Your task to perform on an android device: Add "apple airpods pro" to the cart on ebay, then select checkout. Image 0: 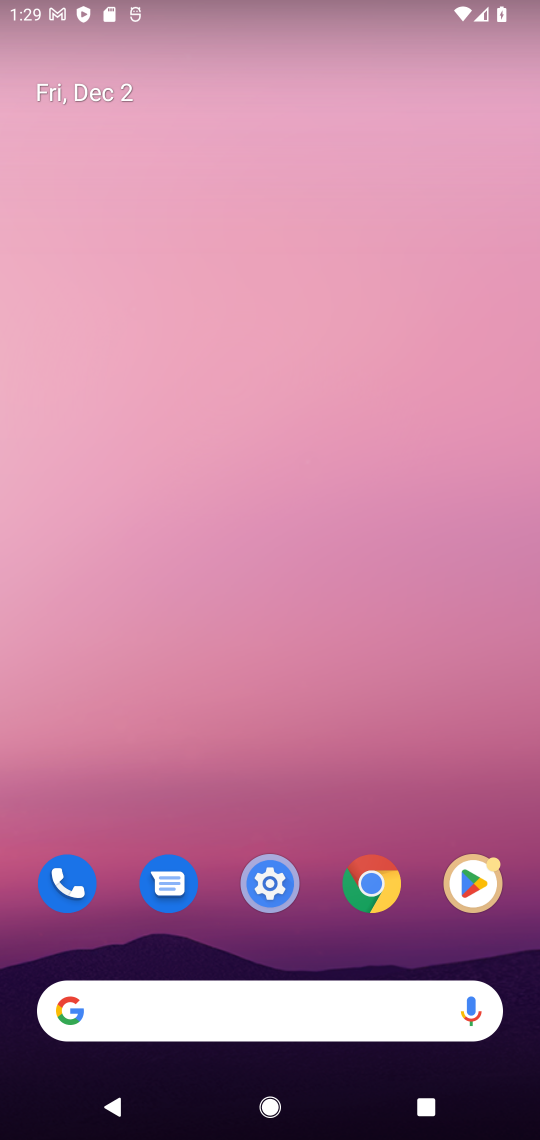
Step 0: click (363, 889)
Your task to perform on an android device: Add "apple airpods pro" to the cart on ebay, then select checkout. Image 1: 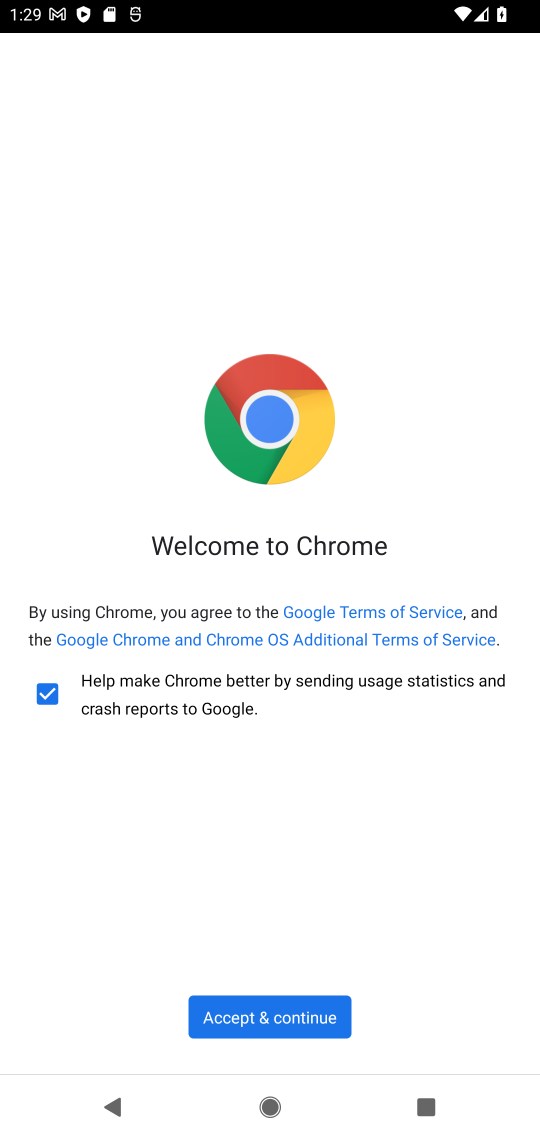
Step 1: click (305, 1022)
Your task to perform on an android device: Add "apple airpods pro" to the cart on ebay, then select checkout. Image 2: 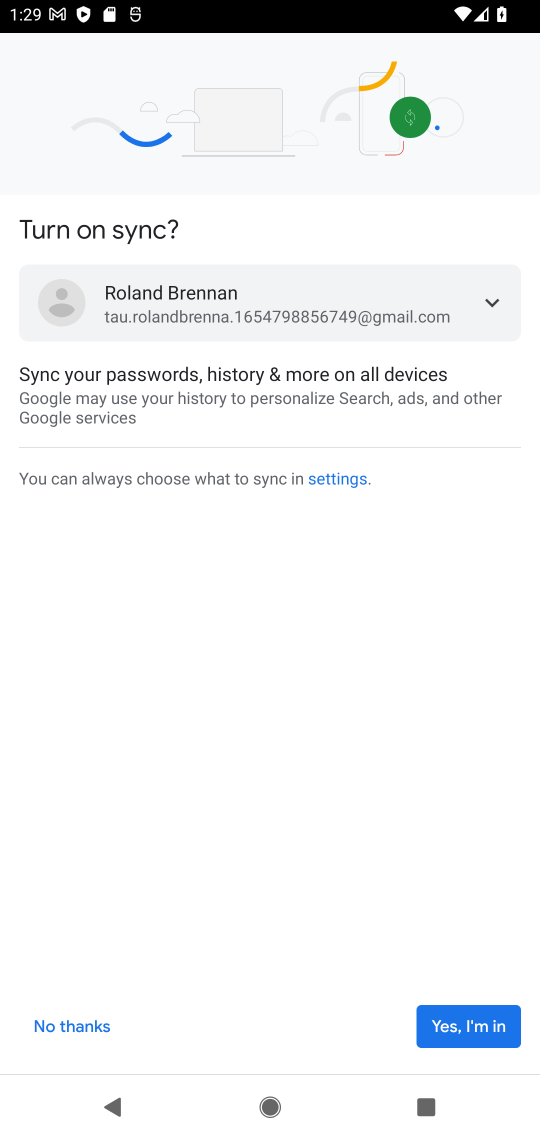
Step 2: click (455, 1022)
Your task to perform on an android device: Add "apple airpods pro" to the cart on ebay, then select checkout. Image 3: 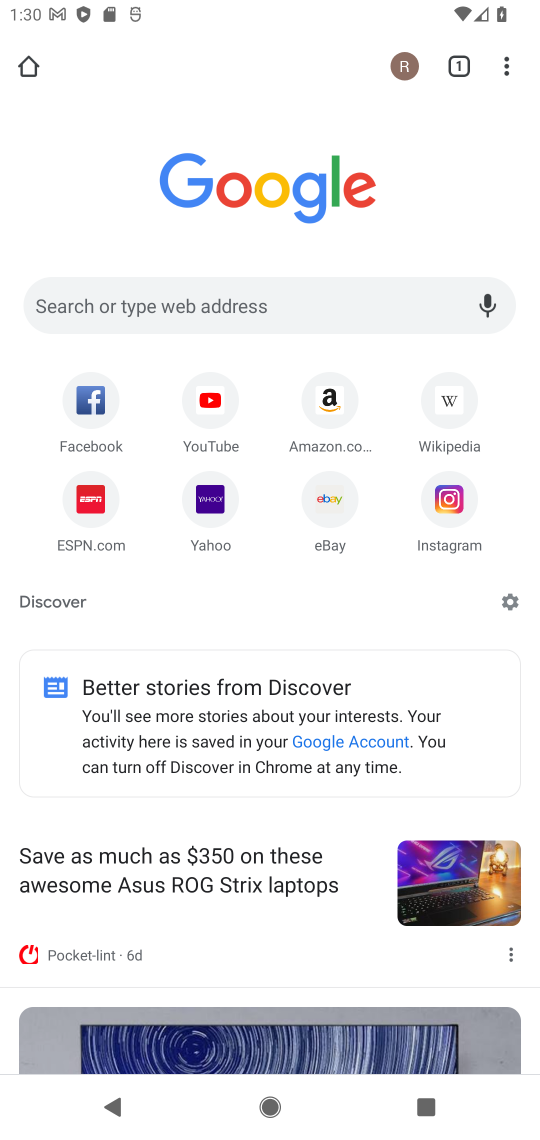
Step 3: click (192, 296)
Your task to perform on an android device: Add "apple airpods pro" to the cart on ebay, then select checkout. Image 4: 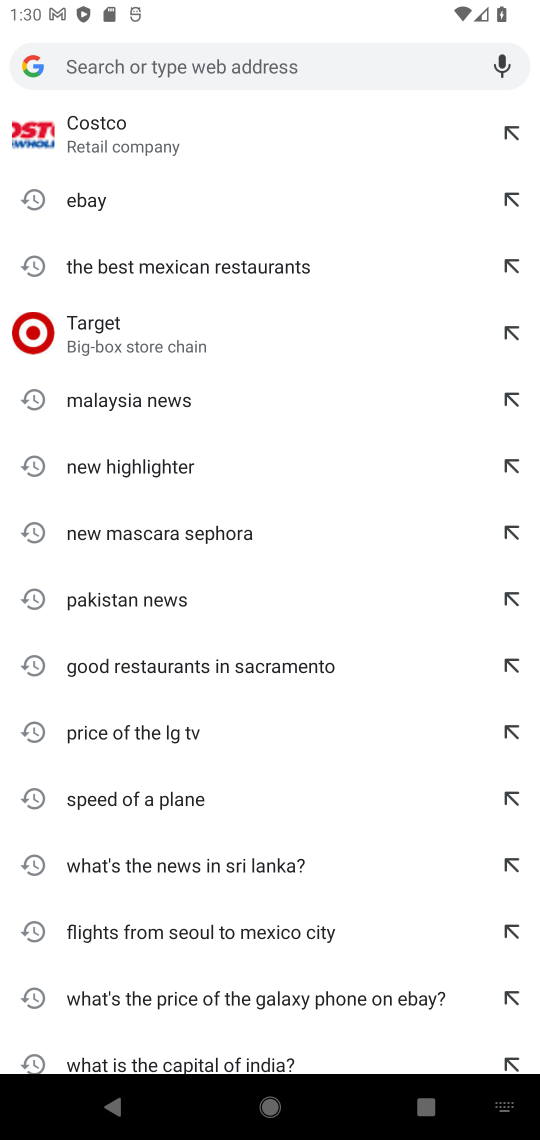
Step 4: type "ebay"
Your task to perform on an android device: Add "apple airpods pro" to the cart on ebay, then select checkout. Image 5: 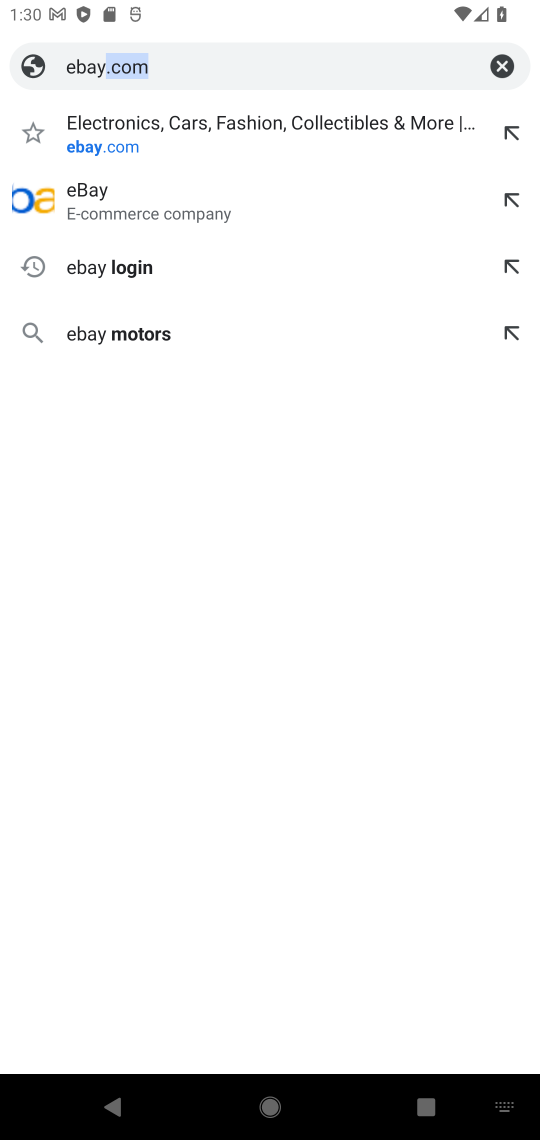
Step 5: click (118, 131)
Your task to perform on an android device: Add "apple airpods pro" to the cart on ebay, then select checkout. Image 6: 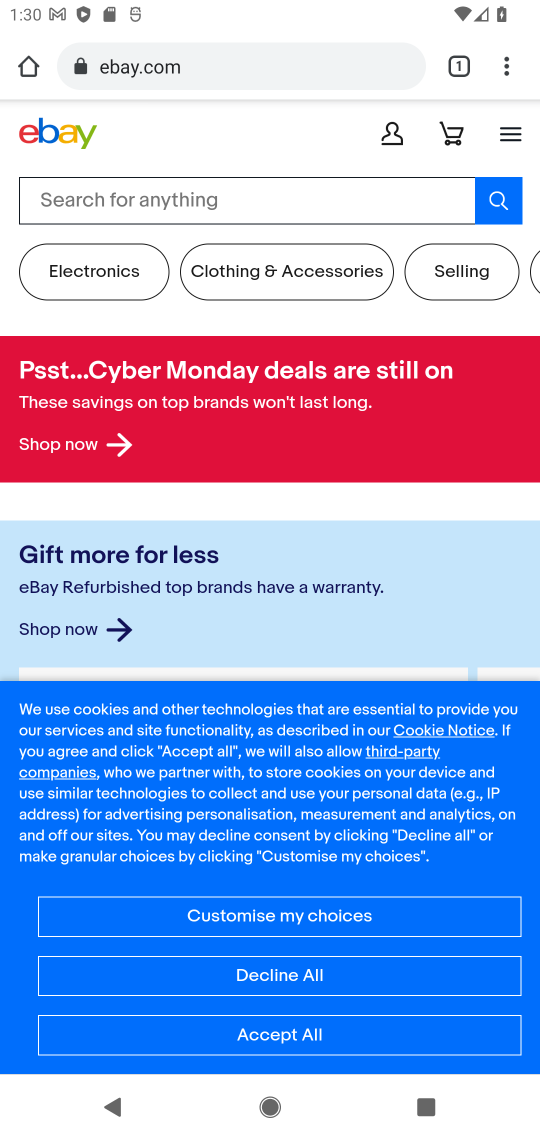
Step 6: click (313, 199)
Your task to perform on an android device: Add "apple airpods pro" to the cart on ebay, then select checkout. Image 7: 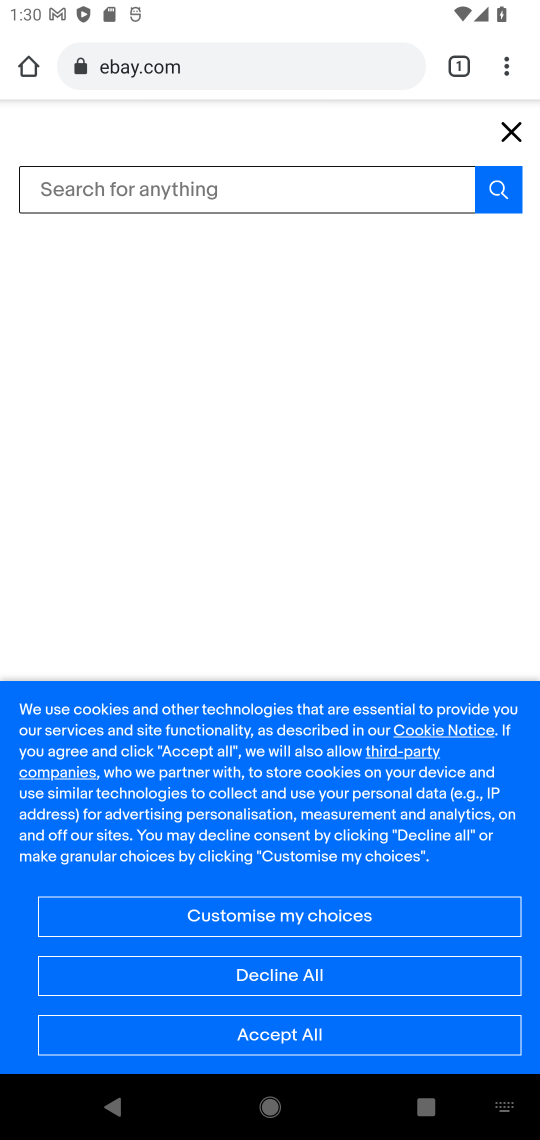
Step 7: type "apple airpods"
Your task to perform on an android device: Add "apple airpods pro" to the cart on ebay, then select checkout. Image 8: 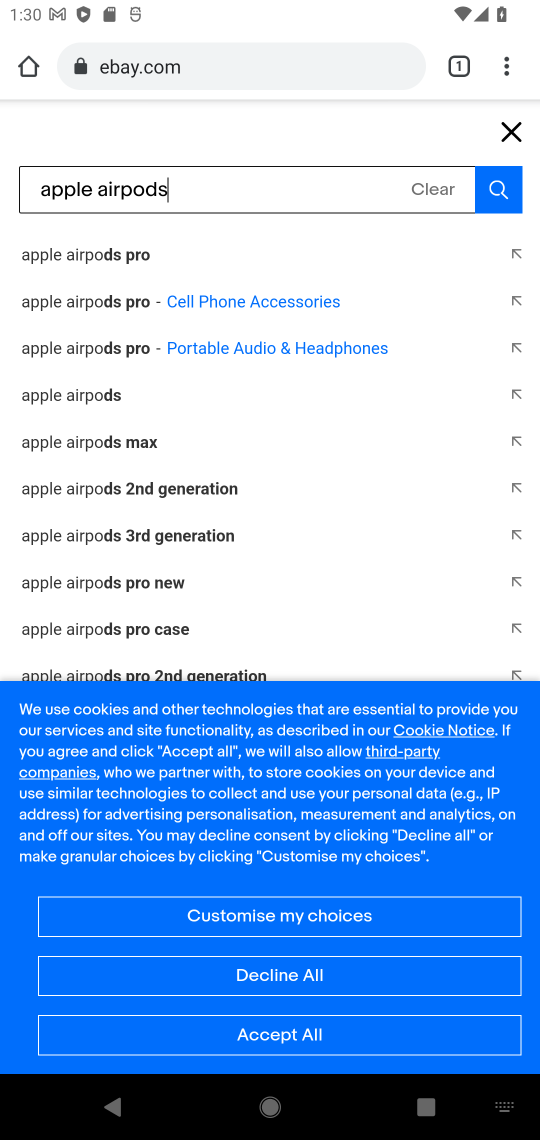
Step 8: click (143, 264)
Your task to perform on an android device: Add "apple airpods pro" to the cart on ebay, then select checkout. Image 9: 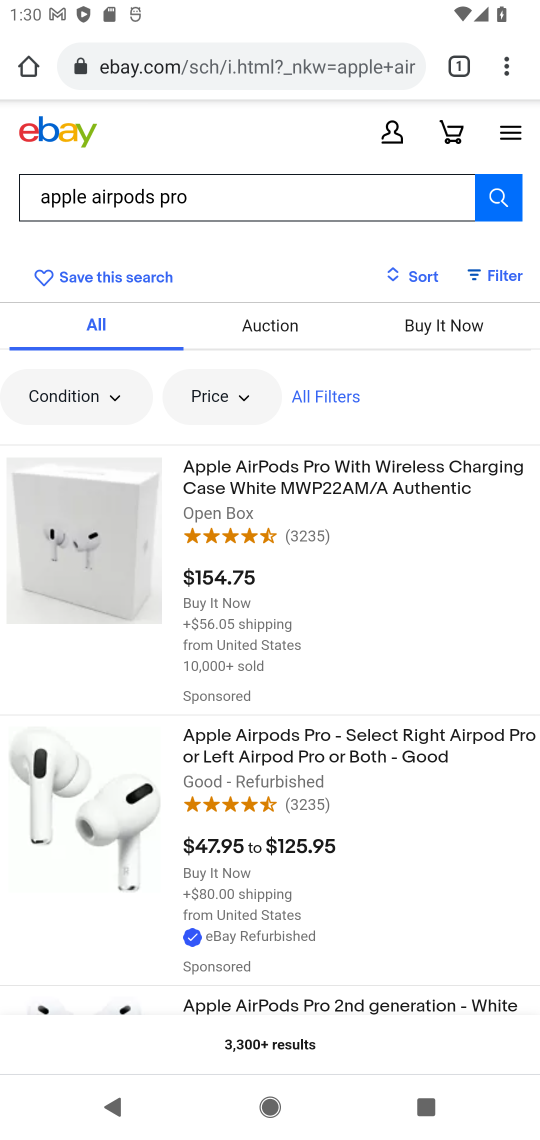
Step 9: click (115, 567)
Your task to perform on an android device: Add "apple airpods pro" to the cart on ebay, then select checkout. Image 10: 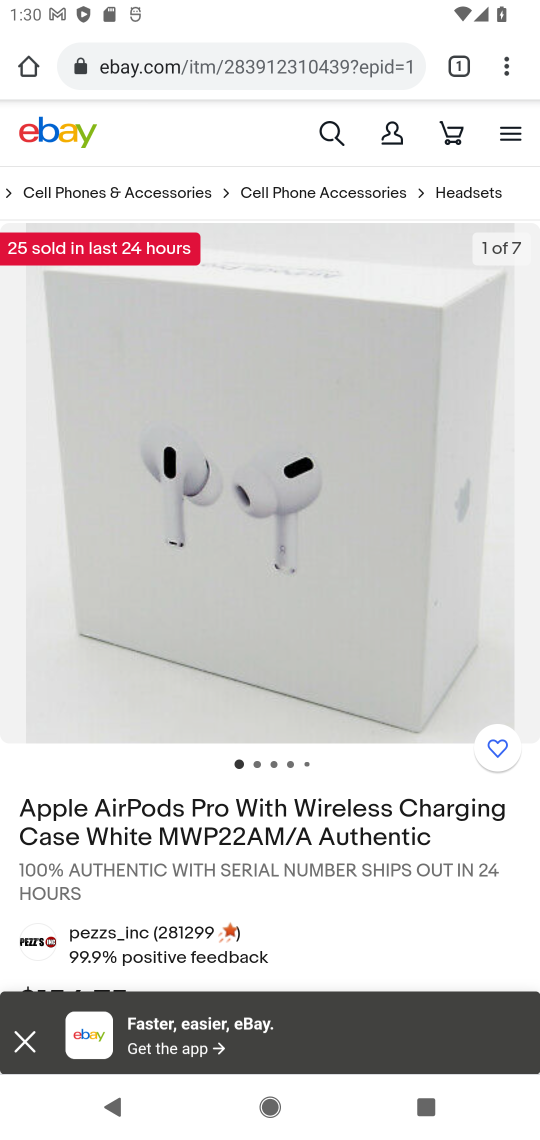
Step 10: drag from (392, 852) to (385, 267)
Your task to perform on an android device: Add "apple airpods pro" to the cart on ebay, then select checkout. Image 11: 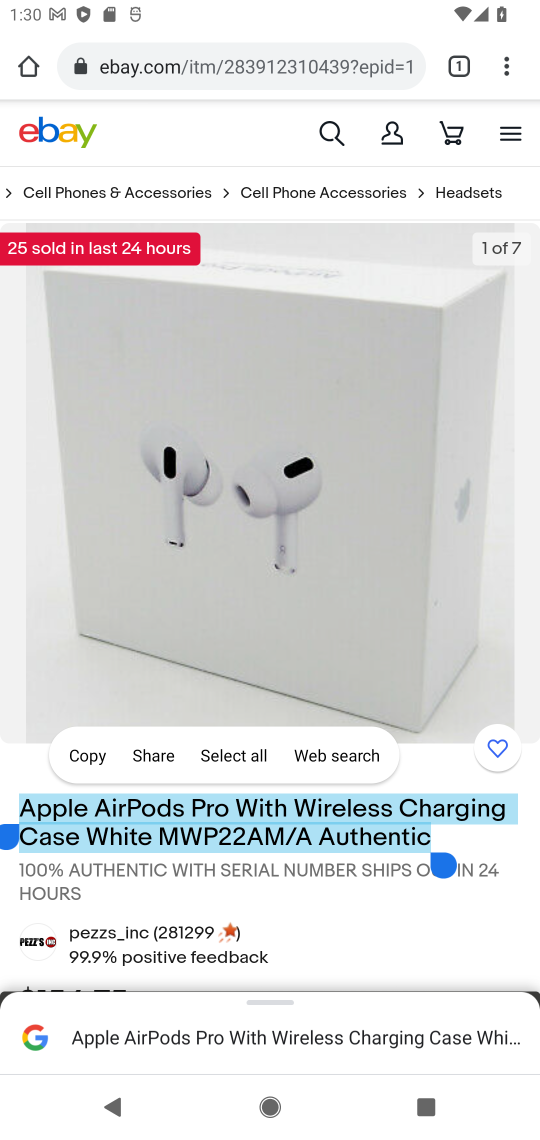
Step 11: click (447, 936)
Your task to perform on an android device: Add "apple airpods pro" to the cart on ebay, then select checkout. Image 12: 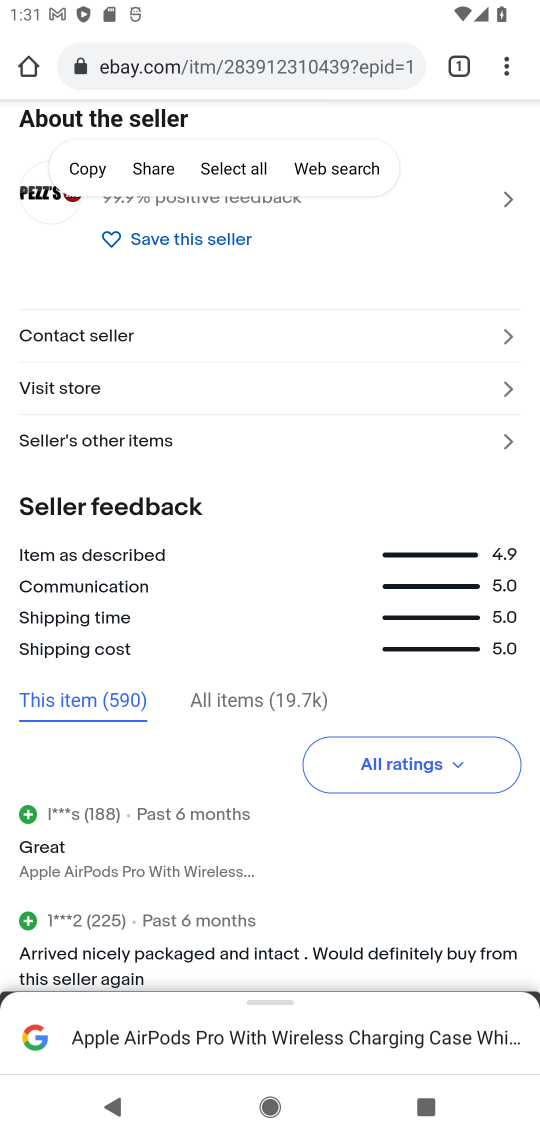
Step 12: click (447, 936)
Your task to perform on an android device: Add "apple airpods pro" to the cart on ebay, then select checkout. Image 13: 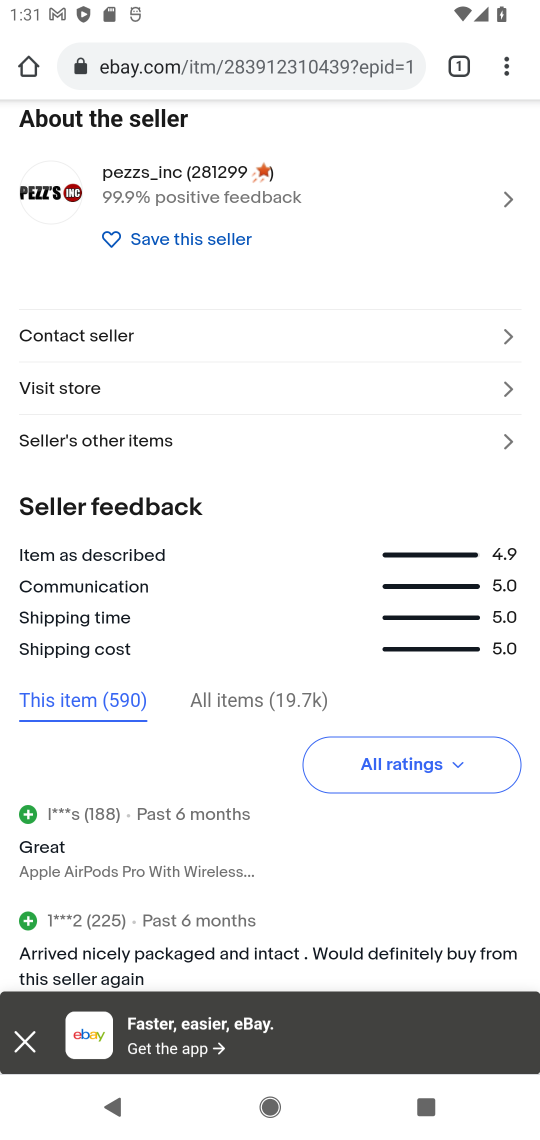
Step 13: drag from (447, 936) to (406, 471)
Your task to perform on an android device: Add "apple airpods pro" to the cart on ebay, then select checkout. Image 14: 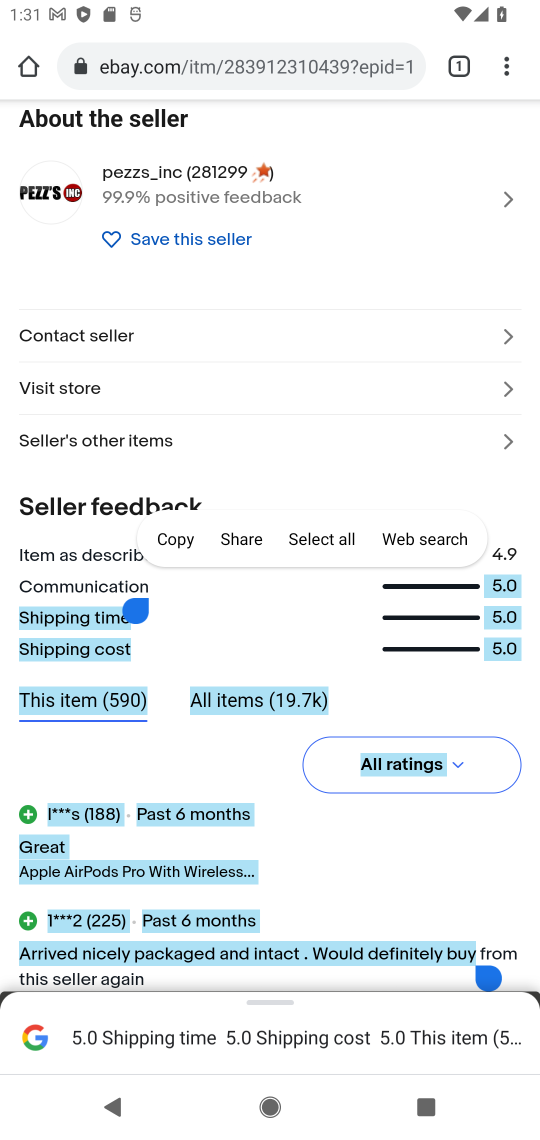
Step 14: click (373, 280)
Your task to perform on an android device: Add "apple airpods pro" to the cart on ebay, then select checkout. Image 15: 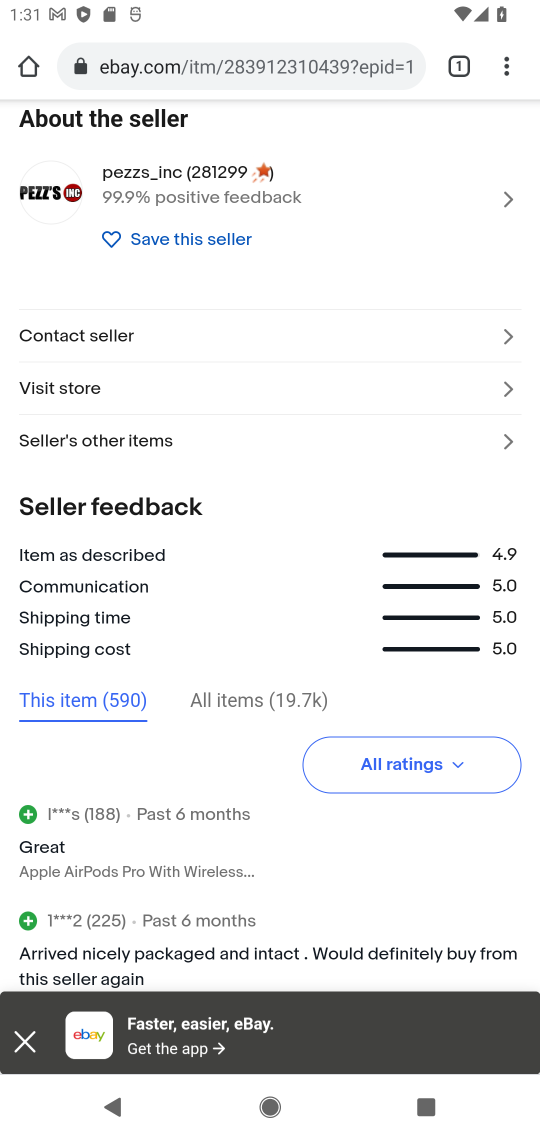
Step 15: click (374, 279)
Your task to perform on an android device: Add "apple airpods pro" to the cart on ebay, then select checkout. Image 16: 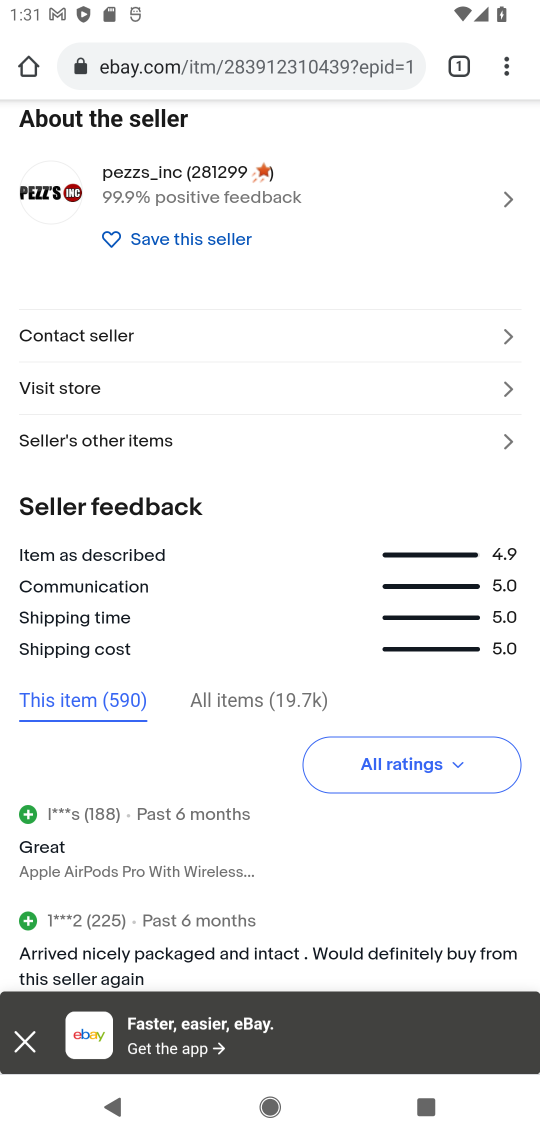
Step 16: drag from (359, 210) to (350, 940)
Your task to perform on an android device: Add "apple airpods pro" to the cart on ebay, then select checkout. Image 17: 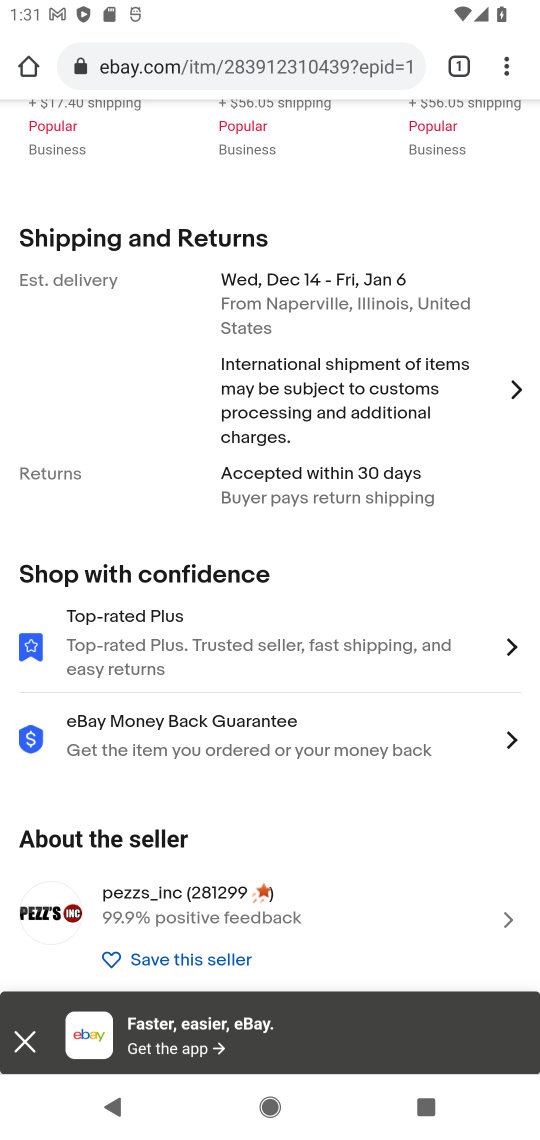
Step 17: drag from (423, 245) to (409, 807)
Your task to perform on an android device: Add "apple airpods pro" to the cart on ebay, then select checkout. Image 18: 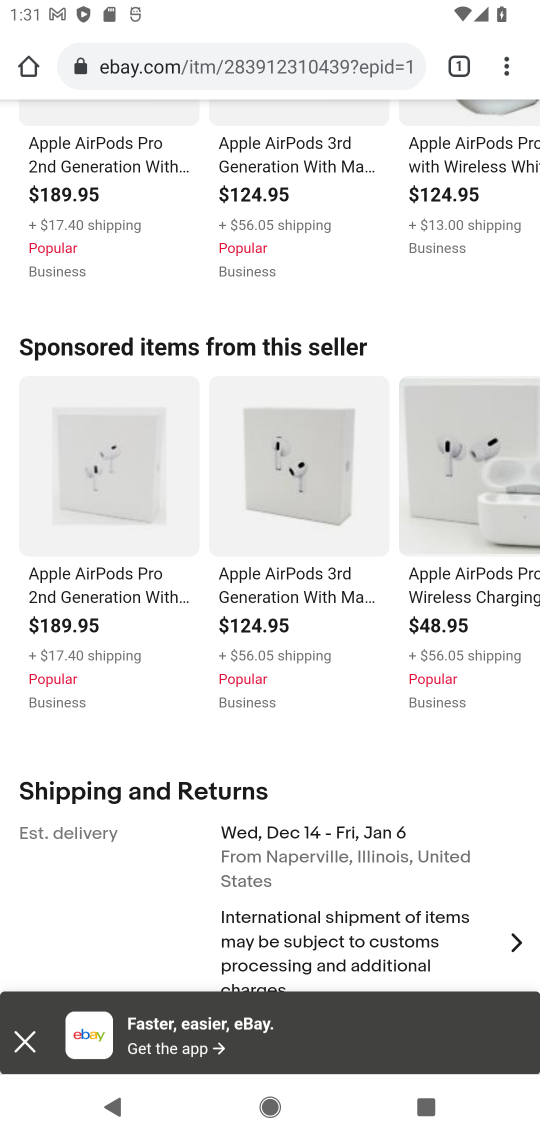
Step 18: drag from (337, 191) to (343, 806)
Your task to perform on an android device: Add "apple airpods pro" to the cart on ebay, then select checkout. Image 19: 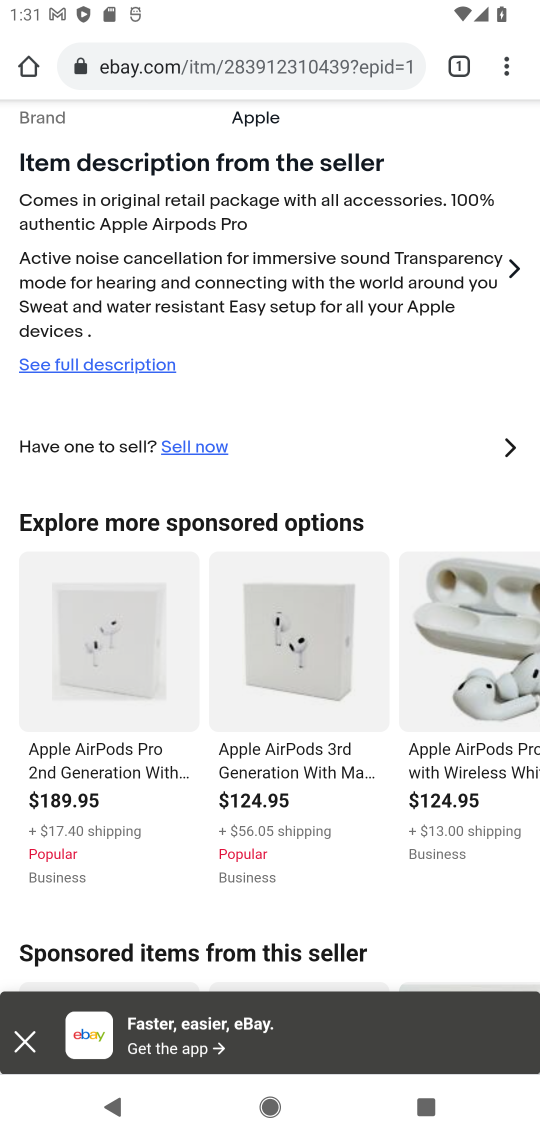
Step 19: drag from (375, 267) to (344, 747)
Your task to perform on an android device: Add "apple airpods pro" to the cart on ebay, then select checkout. Image 20: 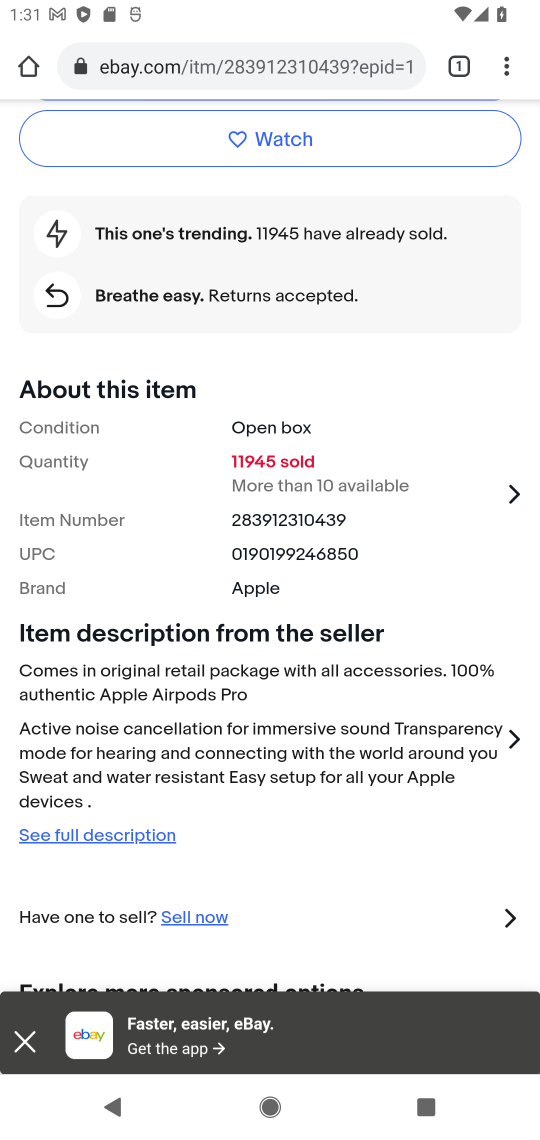
Step 20: drag from (376, 264) to (423, 835)
Your task to perform on an android device: Add "apple airpods pro" to the cart on ebay, then select checkout. Image 21: 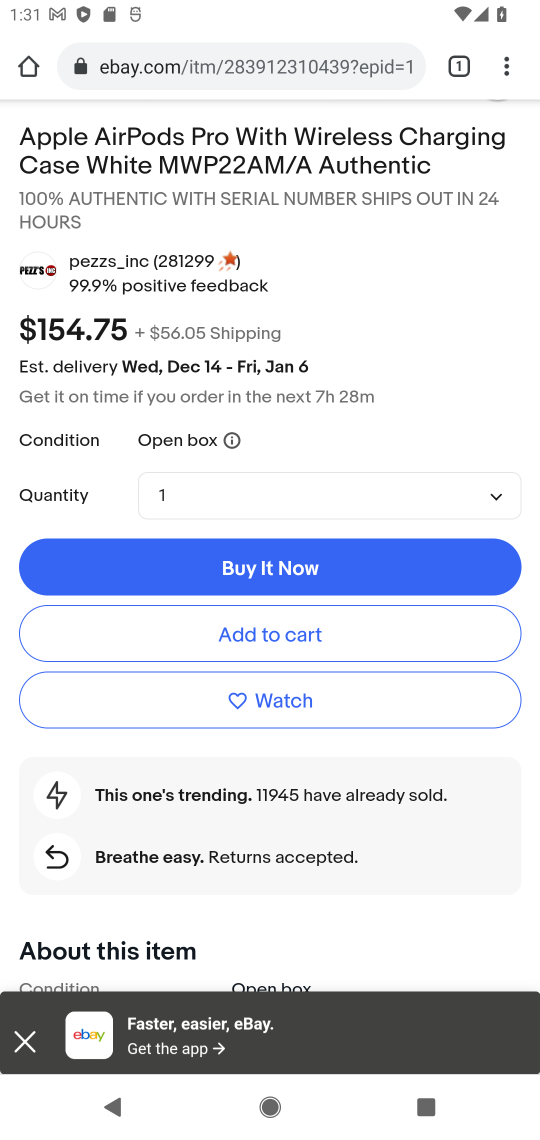
Step 21: click (308, 641)
Your task to perform on an android device: Add "apple airpods pro" to the cart on ebay, then select checkout. Image 22: 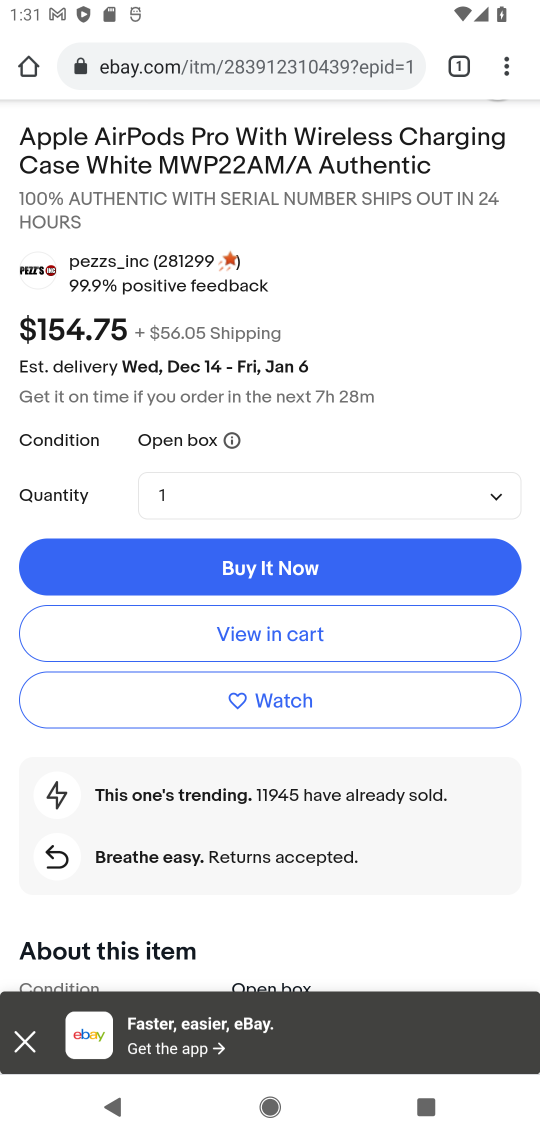
Step 22: click (308, 641)
Your task to perform on an android device: Add "apple airpods pro" to the cart on ebay, then select checkout. Image 23: 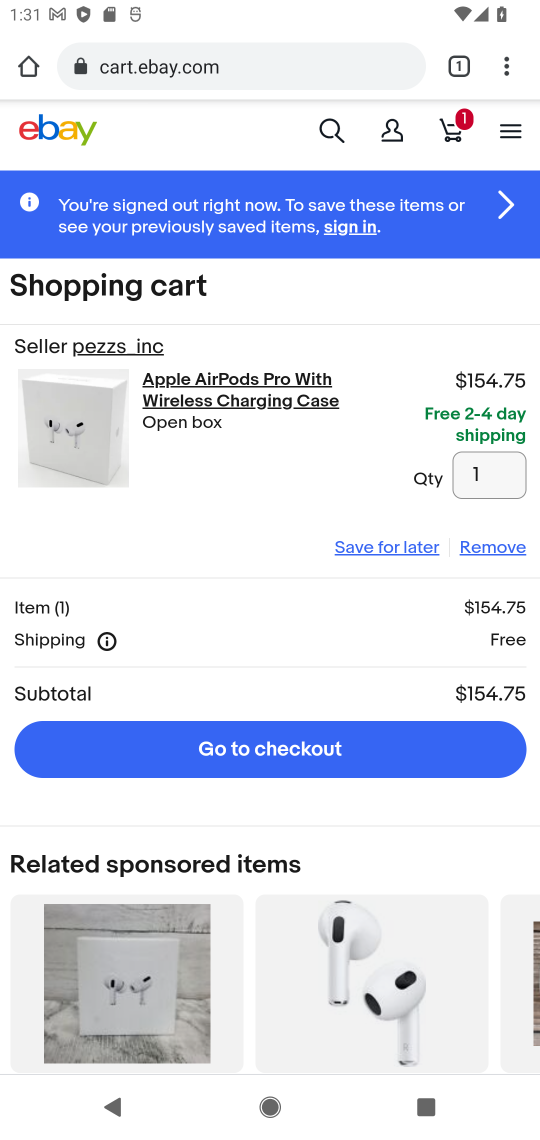
Step 23: click (266, 743)
Your task to perform on an android device: Add "apple airpods pro" to the cart on ebay, then select checkout. Image 24: 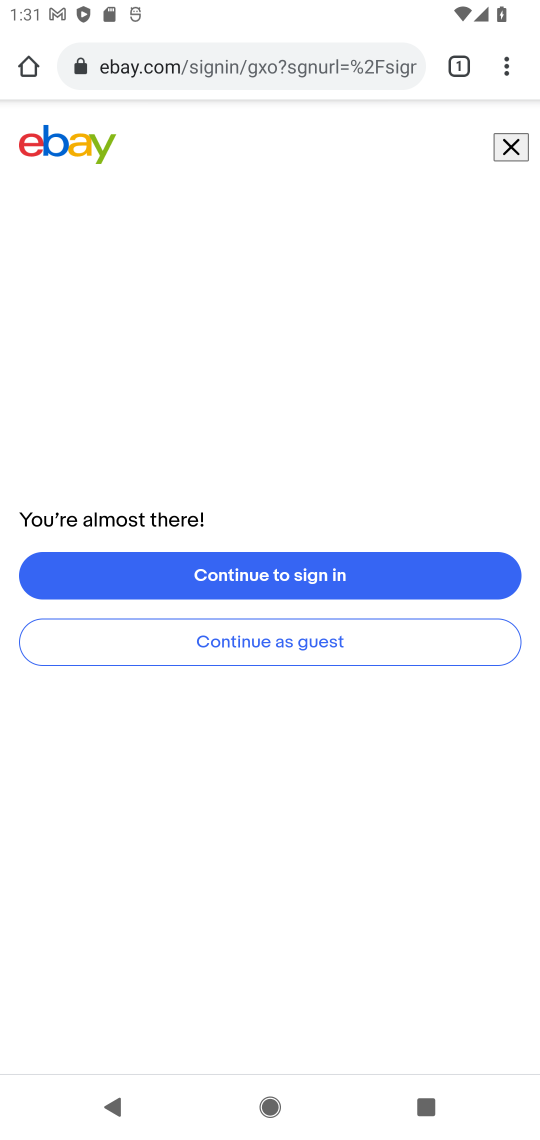
Step 24: task complete